Your task to perform on an android device: Open Chrome and go to the settings page Image 0: 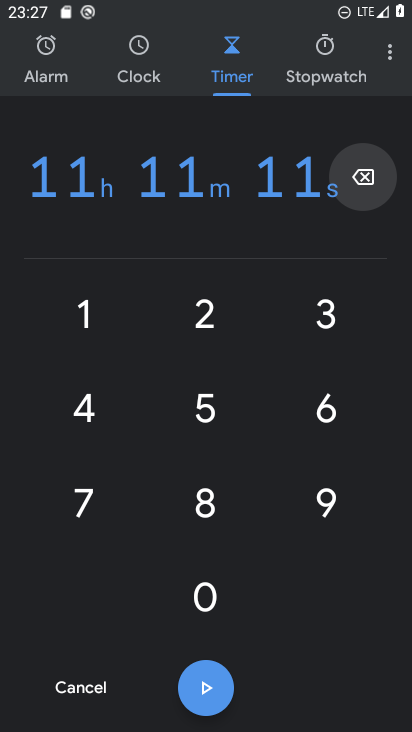
Step 0: press home button
Your task to perform on an android device: Open Chrome and go to the settings page Image 1: 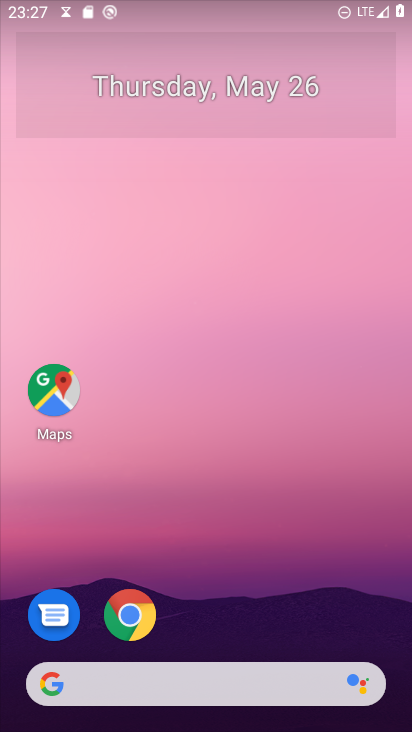
Step 1: click (109, 604)
Your task to perform on an android device: Open Chrome and go to the settings page Image 2: 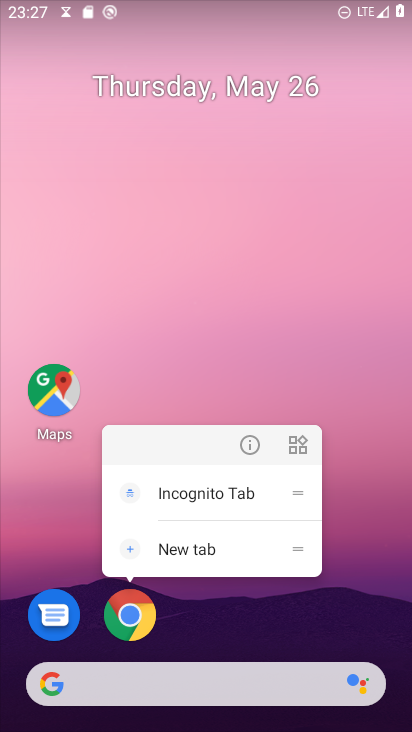
Step 2: click (130, 607)
Your task to perform on an android device: Open Chrome and go to the settings page Image 3: 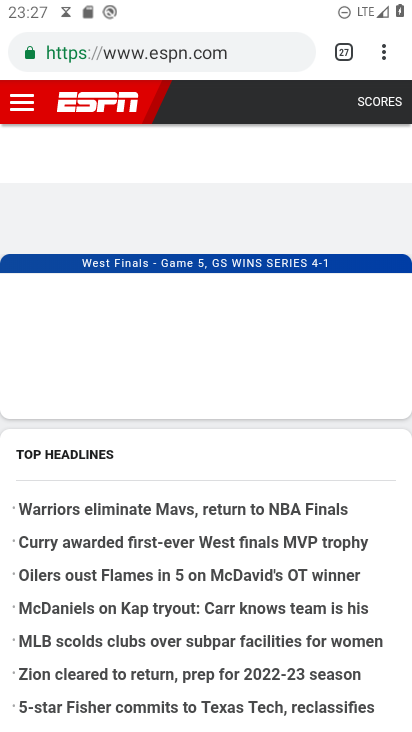
Step 3: click (380, 44)
Your task to perform on an android device: Open Chrome and go to the settings page Image 4: 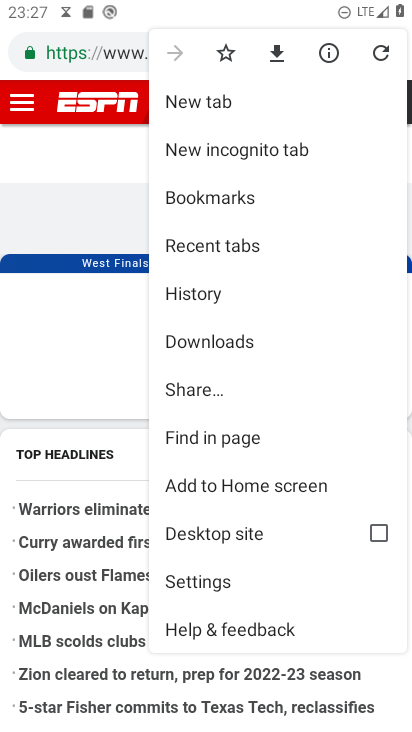
Step 4: click (207, 583)
Your task to perform on an android device: Open Chrome and go to the settings page Image 5: 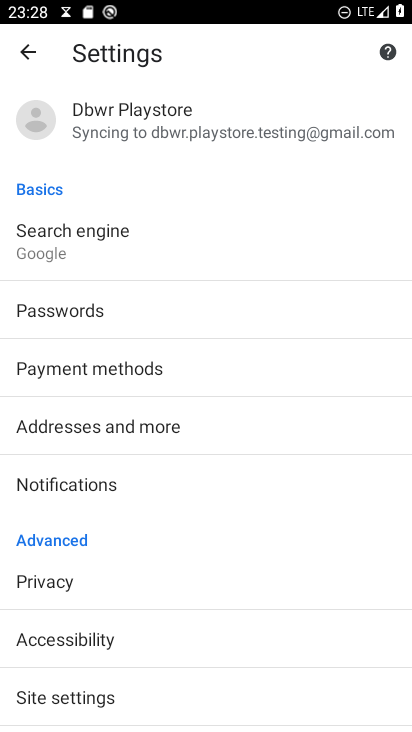
Step 5: task complete